Your task to perform on an android device: see sites visited before in the chrome app Image 0: 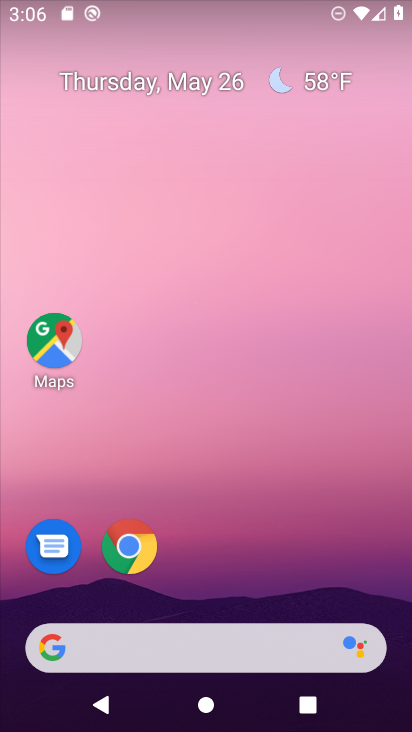
Step 0: press home button
Your task to perform on an android device: see sites visited before in the chrome app Image 1: 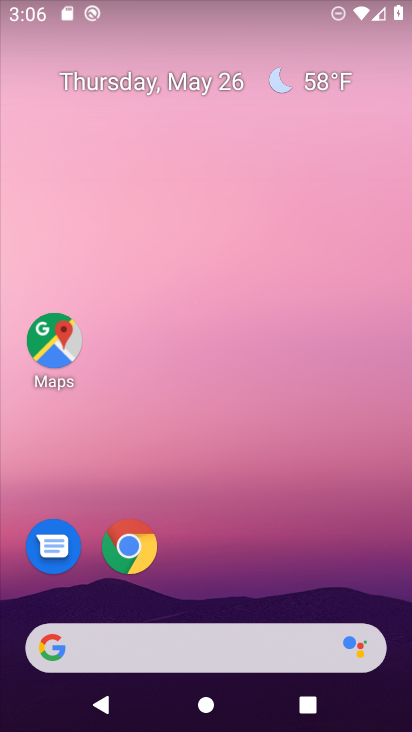
Step 1: click (120, 534)
Your task to perform on an android device: see sites visited before in the chrome app Image 2: 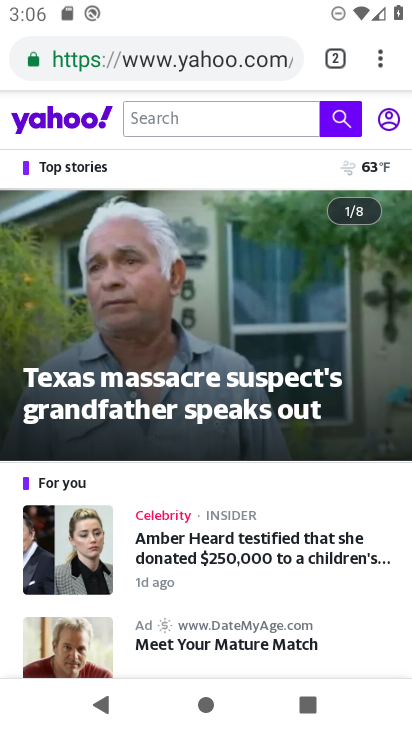
Step 2: click (382, 52)
Your task to perform on an android device: see sites visited before in the chrome app Image 3: 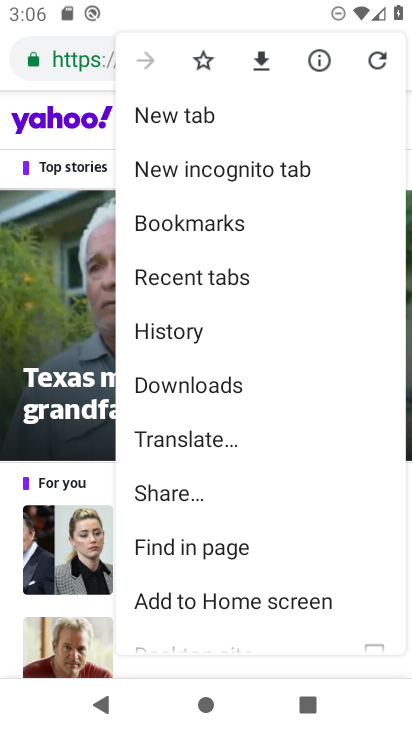
Step 3: click (215, 329)
Your task to perform on an android device: see sites visited before in the chrome app Image 4: 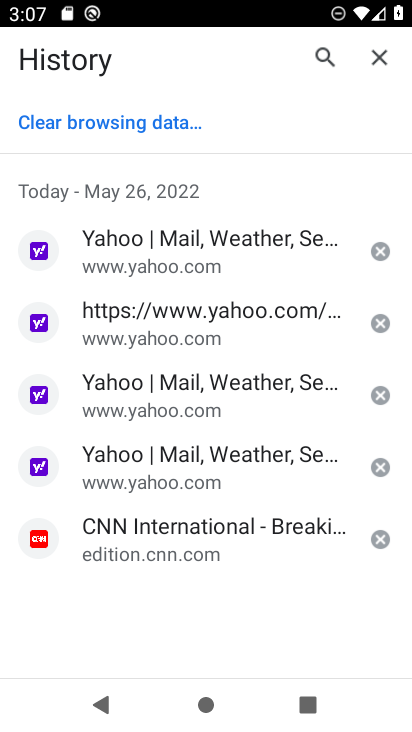
Step 4: task complete